Your task to perform on an android device: Go to Google Image 0: 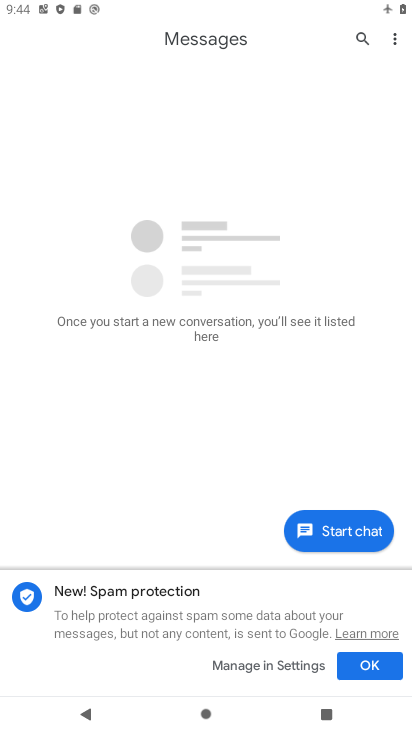
Step 0: press back button
Your task to perform on an android device: Go to Google Image 1: 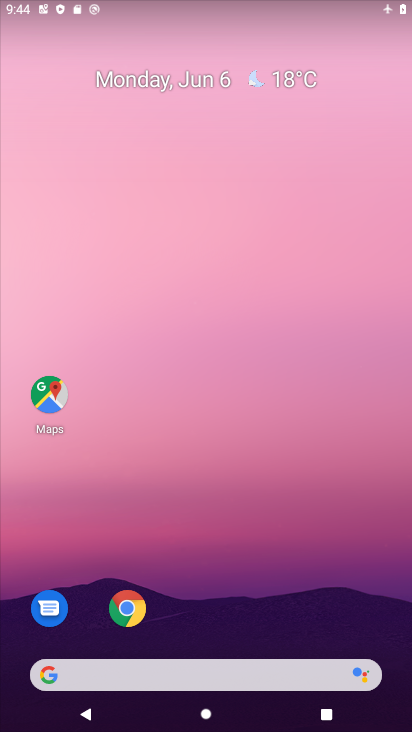
Step 1: drag from (250, 558) to (240, 146)
Your task to perform on an android device: Go to Google Image 2: 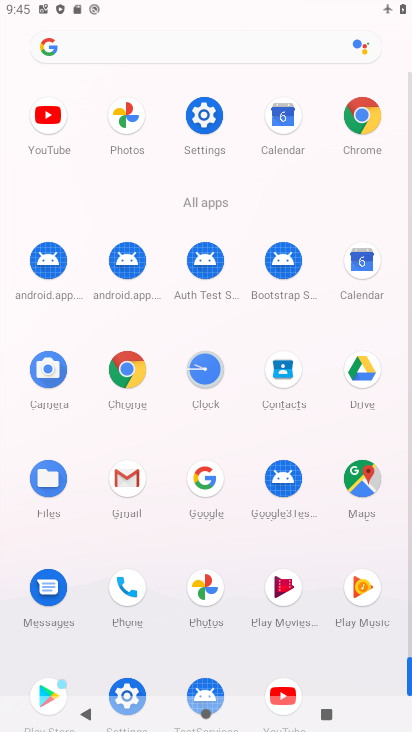
Step 2: click (204, 477)
Your task to perform on an android device: Go to Google Image 3: 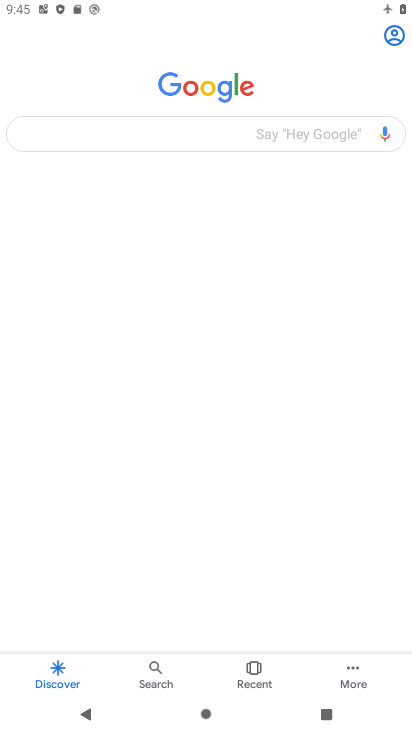
Step 3: task complete